Your task to perform on an android device: Go to accessibility settings Image 0: 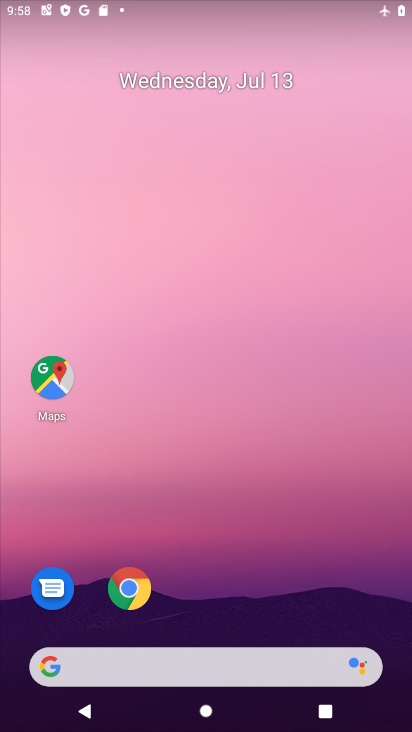
Step 0: drag from (223, 607) to (164, 108)
Your task to perform on an android device: Go to accessibility settings Image 1: 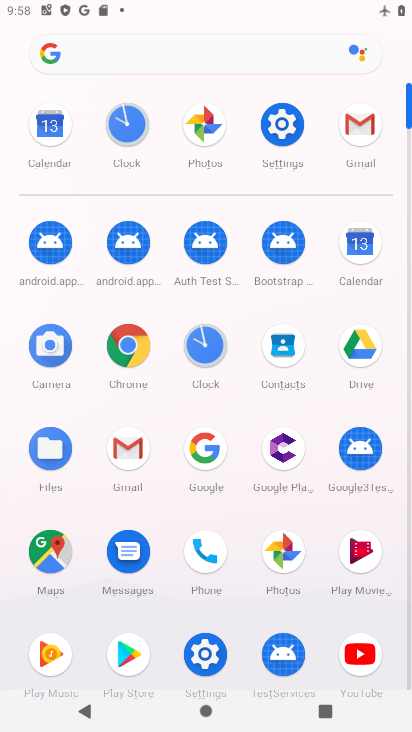
Step 1: click (280, 125)
Your task to perform on an android device: Go to accessibility settings Image 2: 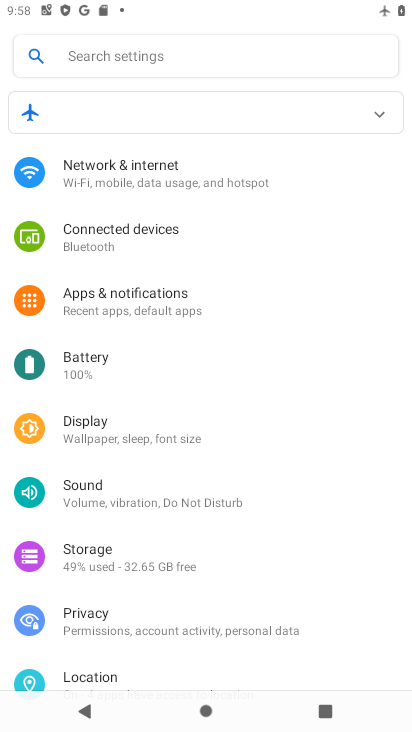
Step 2: drag from (174, 624) to (197, 151)
Your task to perform on an android device: Go to accessibility settings Image 3: 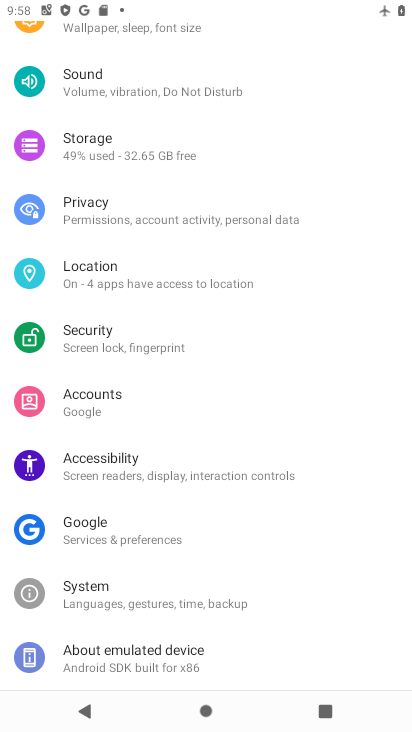
Step 3: click (136, 459)
Your task to perform on an android device: Go to accessibility settings Image 4: 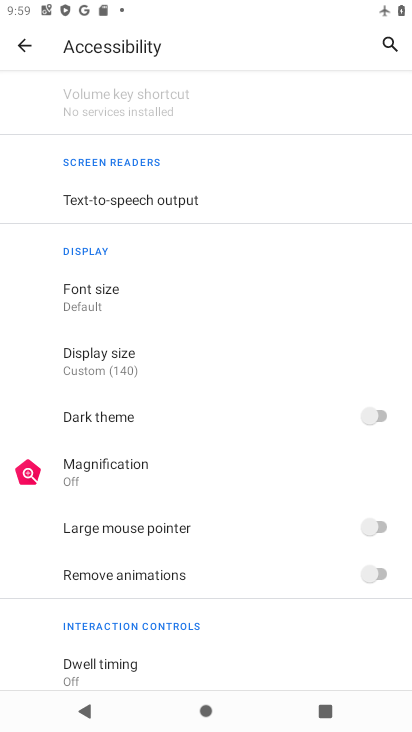
Step 4: task complete